Your task to perform on an android device: Go to internet settings Image 0: 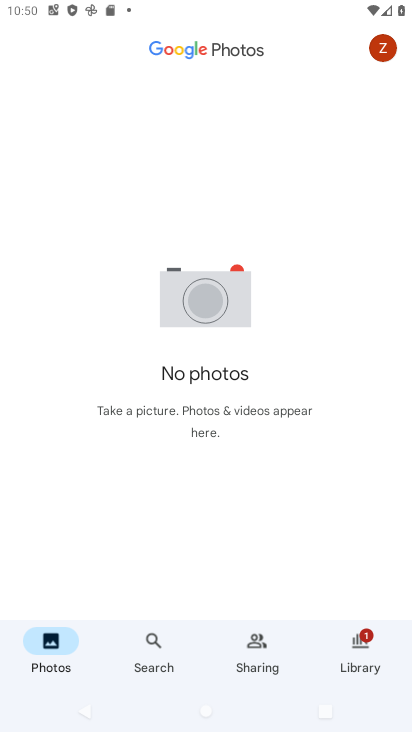
Step 0: press home button
Your task to perform on an android device: Go to internet settings Image 1: 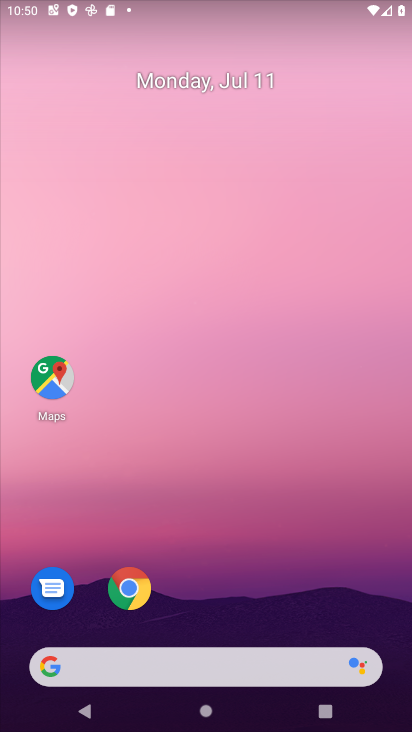
Step 1: drag from (147, 648) to (167, 20)
Your task to perform on an android device: Go to internet settings Image 2: 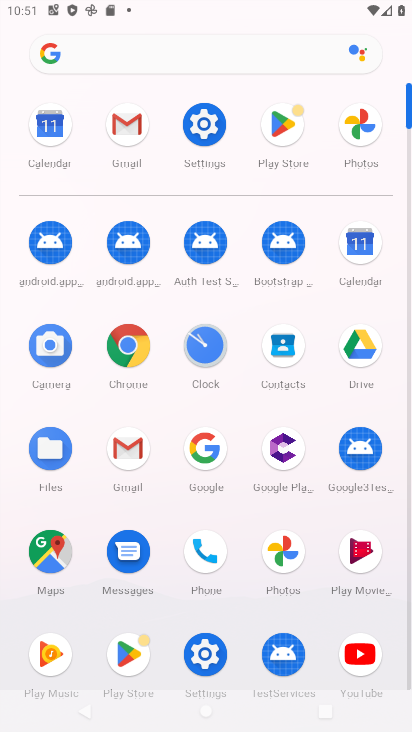
Step 2: click (204, 133)
Your task to perform on an android device: Go to internet settings Image 3: 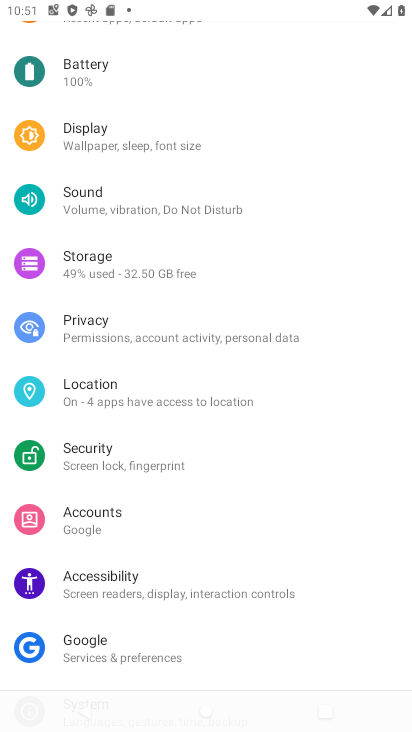
Step 3: drag from (226, 80) to (222, 681)
Your task to perform on an android device: Go to internet settings Image 4: 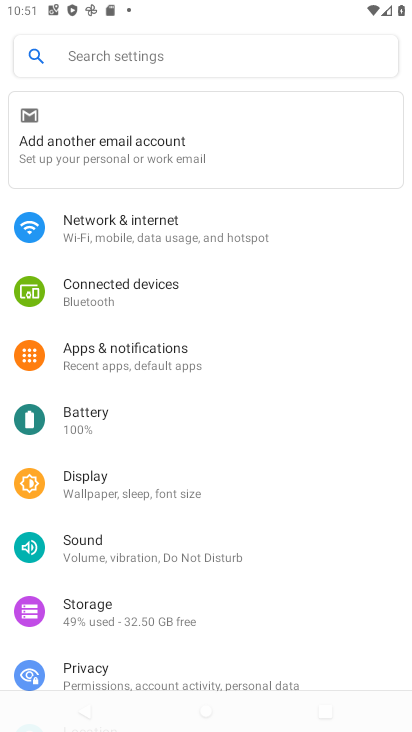
Step 4: click (262, 234)
Your task to perform on an android device: Go to internet settings Image 5: 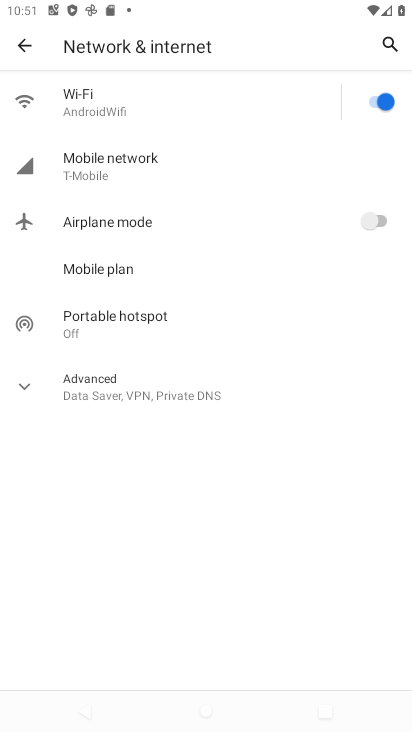
Step 5: task complete